Your task to perform on an android device: change timer sound Image 0: 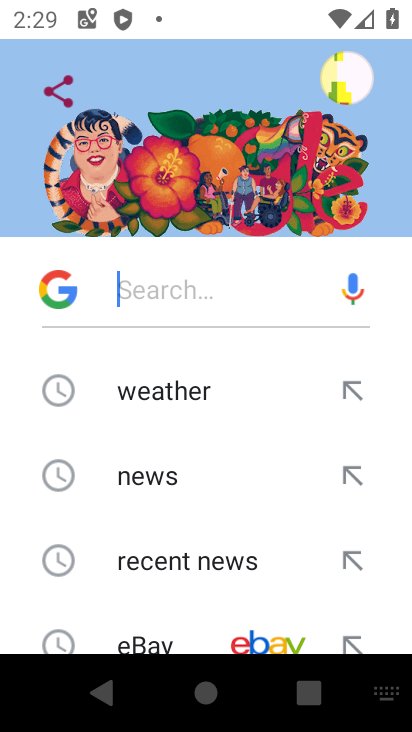
Step 0: drag from (202, 593) to (234, 371)
Your task to perform on an android device: change timer sound Image 1: 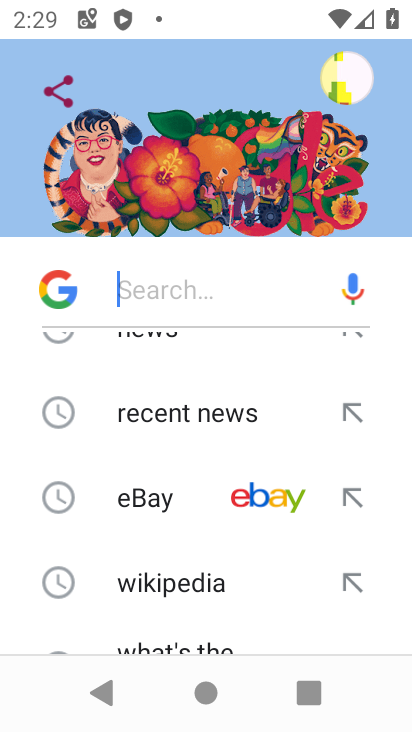
Step 1: drag from (199, 621) to (280, 310)
Your task to perform on an android device: change timer sound Image 2: 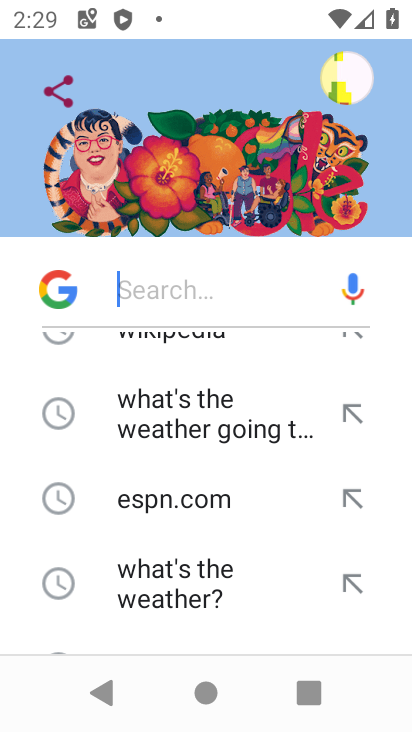
Step 2: press home button
Your task to perform on an android device: change timer sound Image 3: 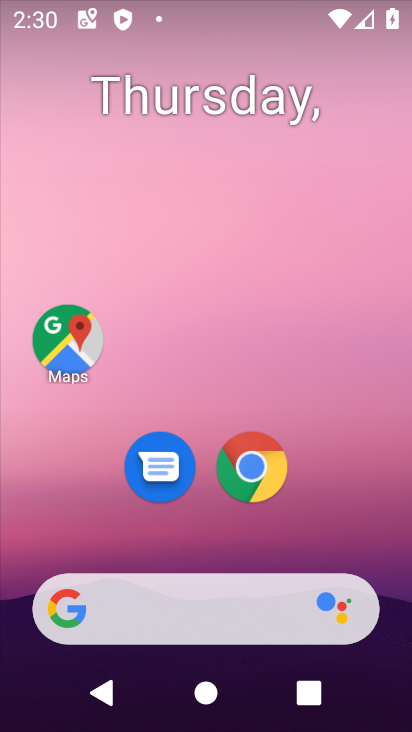
Step 3: drag from (204, 531) to (232, 175)
Your task to perform on an android device: change timer sound Image 4: 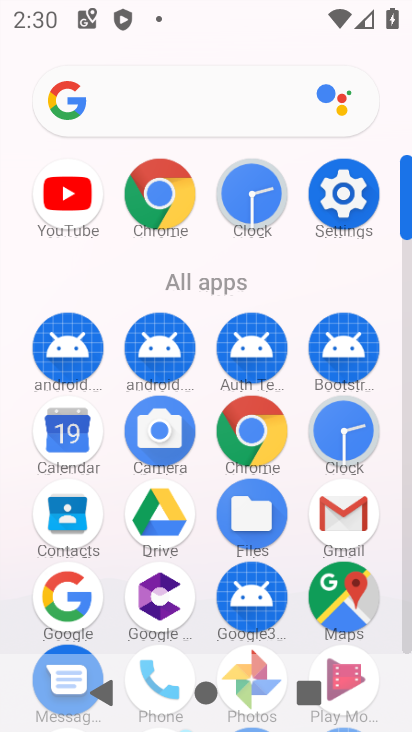
Step 4: click (346, 426)
Your task to perform on an android device: change timer sound Image 5: 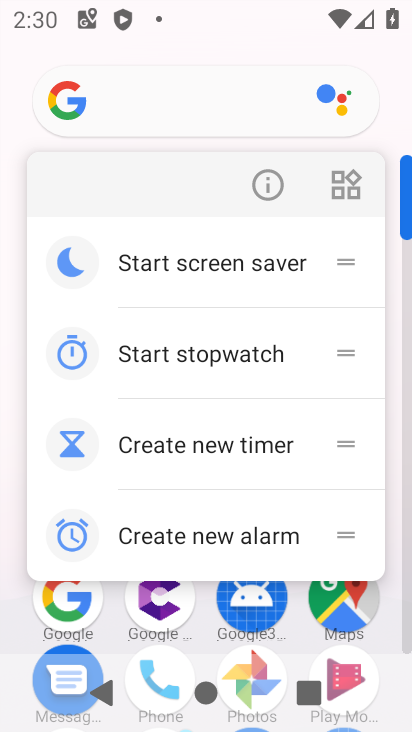
Step 5: click (267, 187)
Your task to perform on an android device: change timer sound Image 6: 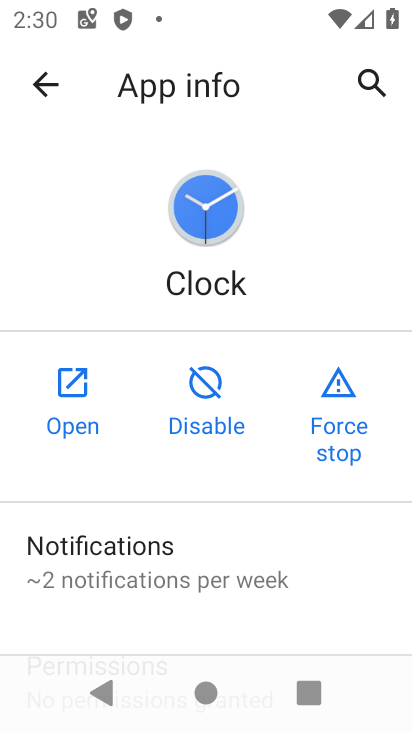
Step 6: click (69, 390)
Your task to perform on an android device: change timer sound Image 7: 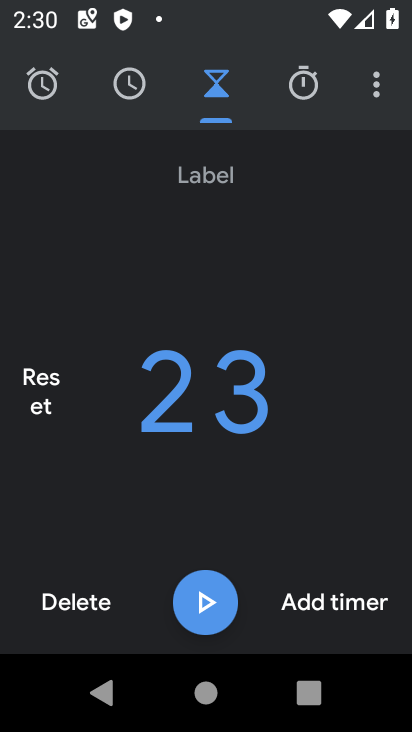
Step 7: click (310, 88)
Your task to perform on an android device: change timer sound Image 8: 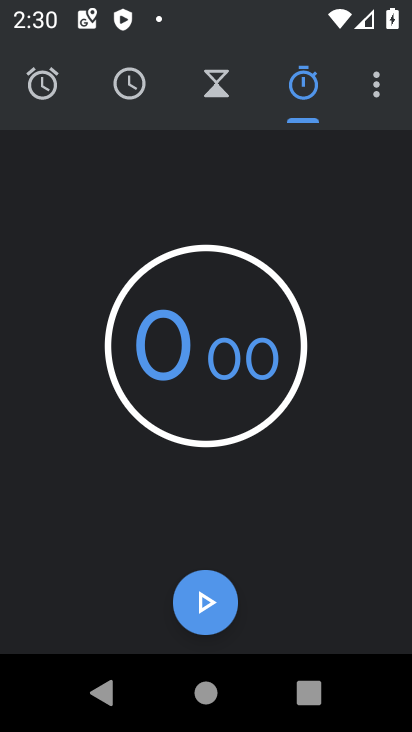
Step 8: click (380, 88)
Your task to perform on an android device: change timer sound Image 9: 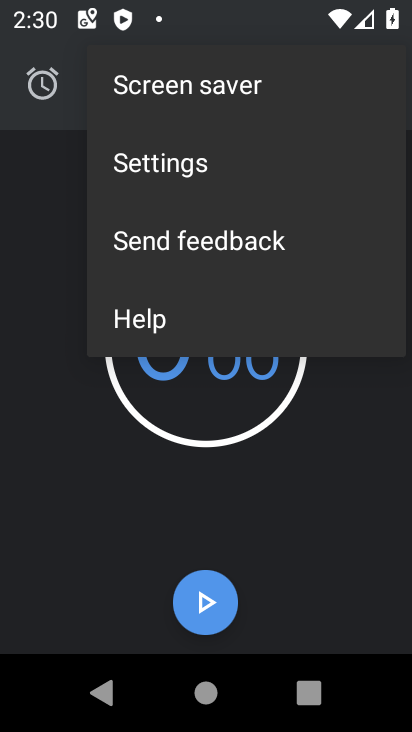
Step 9: click (255, 145)
Your task to perform on an android device: change timer sound Image 10: 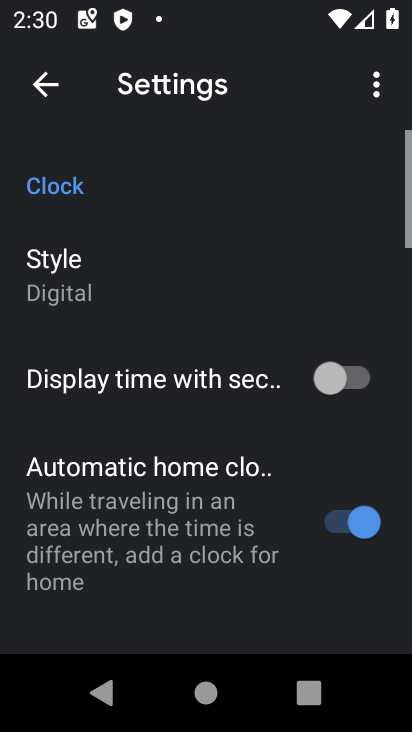
Step 10: drag from (164, 529) to (198, 3)
Your task to perform on an android device: change timer sound Image 11: 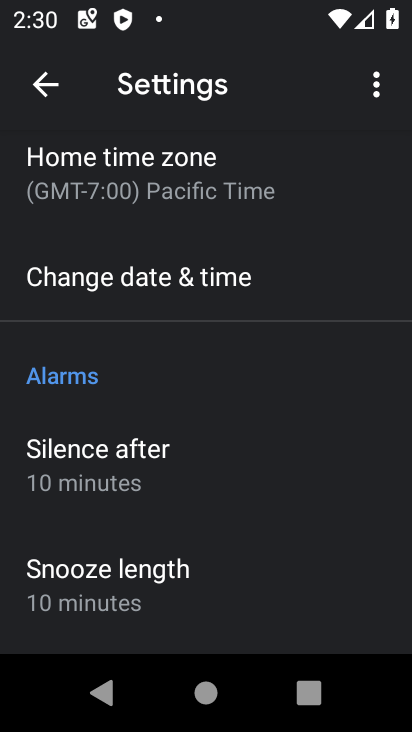
Step 11: drag from (162, 543) to (225, 124)
Your task to perform on an android device: change timer sound Image 12: 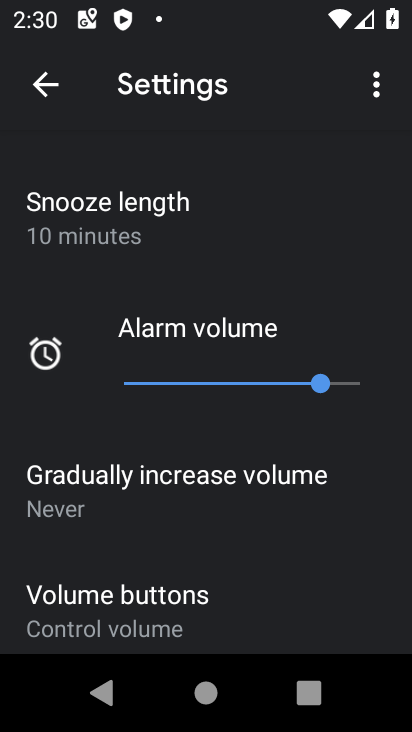
Step 12: drag from (199, 593) to (256, 157)
Your task to perform on an android device: change timer sound Image 13: 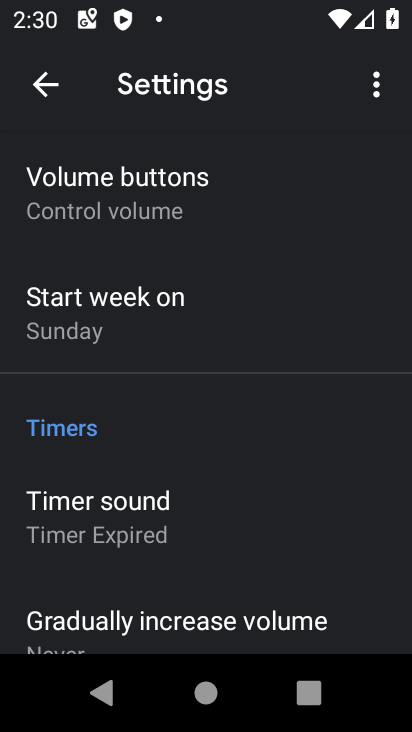
Step 13: click (143, 521)
Your task to perform on an android device: change timer sound Image 14: 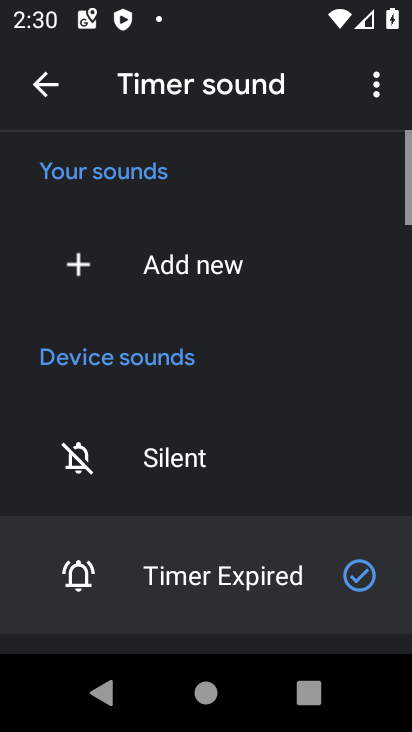
Step 14: drag from (220, 568) to (245, 116)
Your task to perform on an android device: change timer sound Image 15: 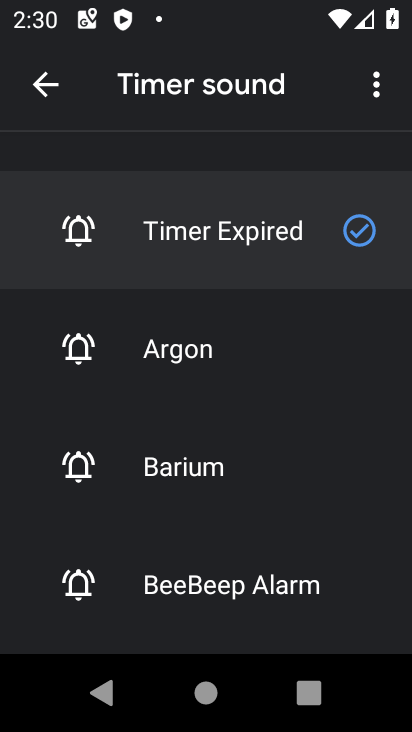
Step 15: click (275, 436)
Your task to perform on an android device: change timer sound Image 16: 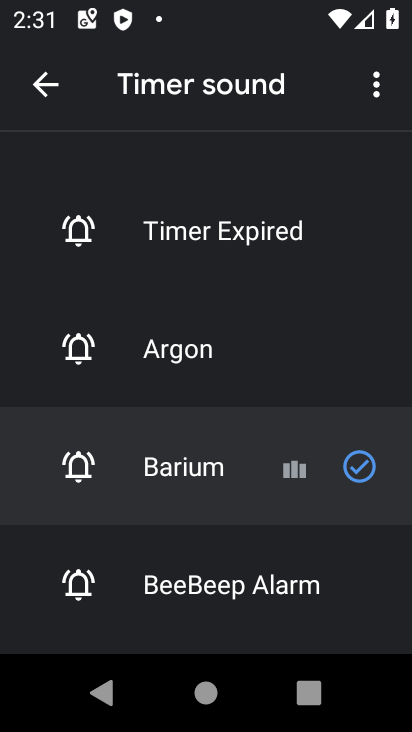
Step 16: task complete